Your task to perform on an android device: Open privacy settings Image 0: 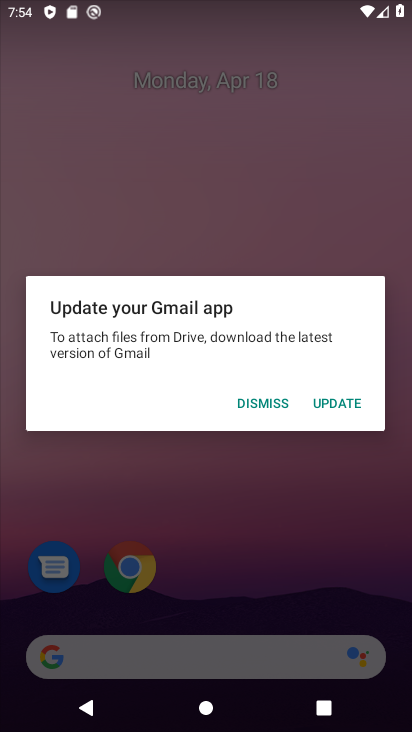
Step 0: press home button
Your task to perform on an android device: Open privacy settings Image 1: 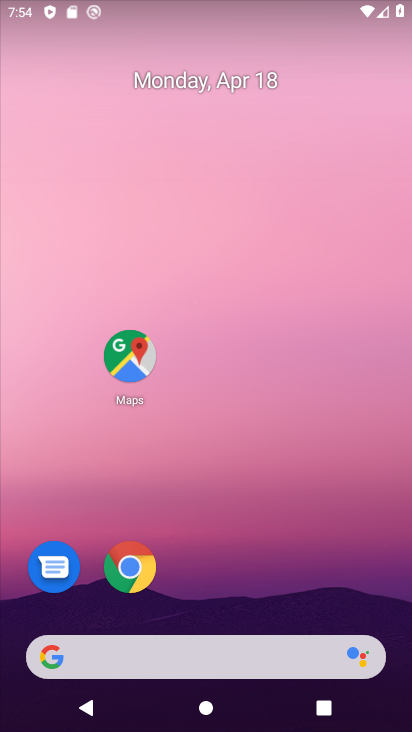
Step 1: drag from (240, 684) to (248, 80)
Your task to perform on an android device: Open privacy settings Image 2: 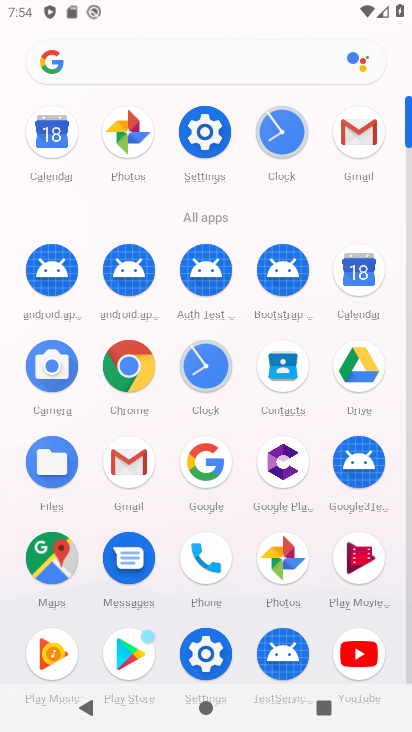
Step 2: click (197, 134)
Your task to perform on an android device: Open privacy settings Image 3: 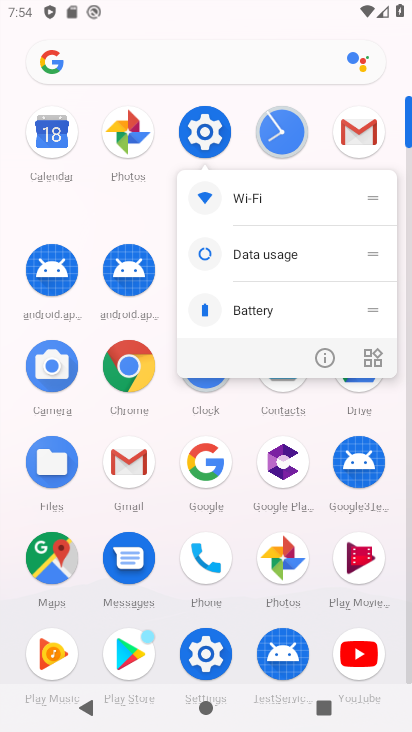
Step 3: click (223, 635)
Your task to perform on an android device: Open privacy settings Image 4: 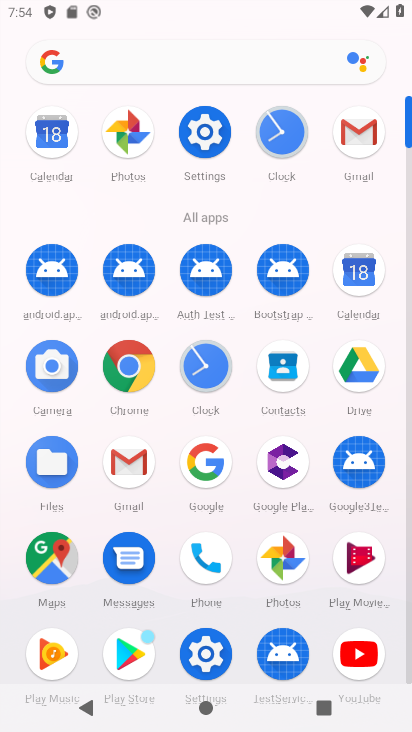
Step 4: click (205, 663)
Your task to perform on an android device: Open privacy settings Image 5: 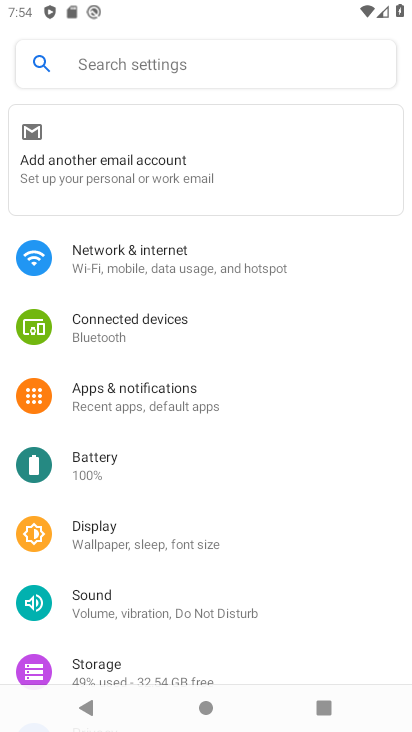
Step 5: drag from (135, 584) to (162, 360)
Your task to perform on an android device: Open privacy settings Image 6: 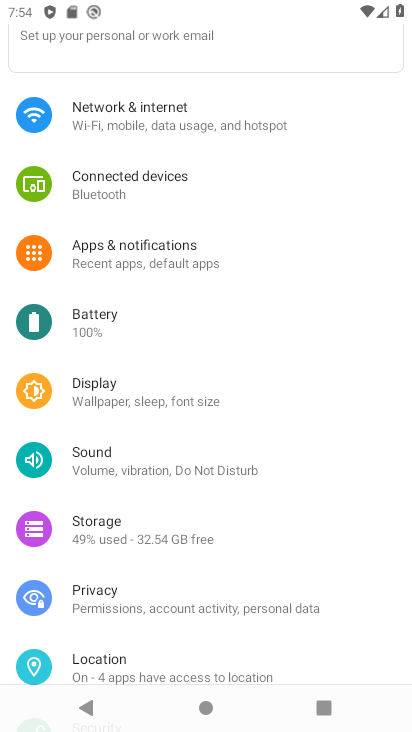
Step 6: click (96, 604)
Your task to perform on an android device: Open privacy settings Image 7: 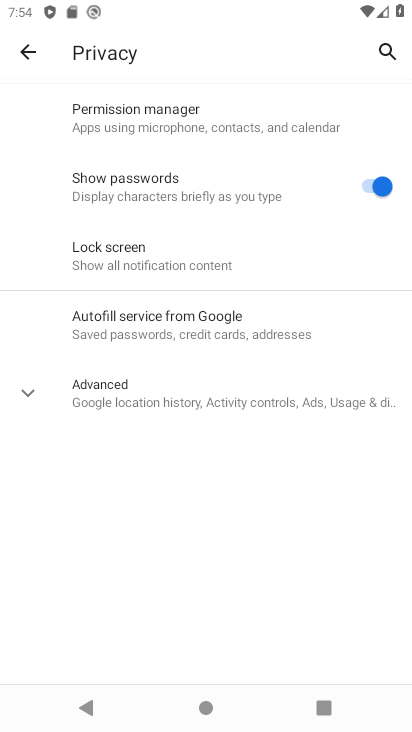
Step 7: click (48, 383)
Your task to perform on an android device: Open privacy settings Image 8: 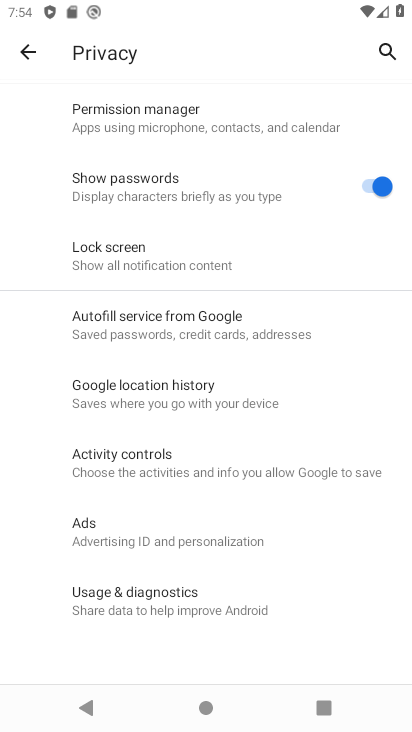
Step 8: task complete